Your task to perform on an android device: turn off sleep mode Image 0: 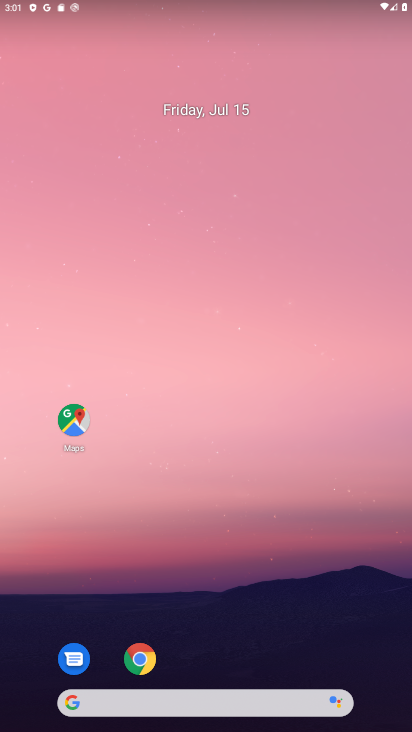
Step 0: drag from (242, 559) to (181, 155)
Your task to perform on an android device: turn off sleep mode Image 1: 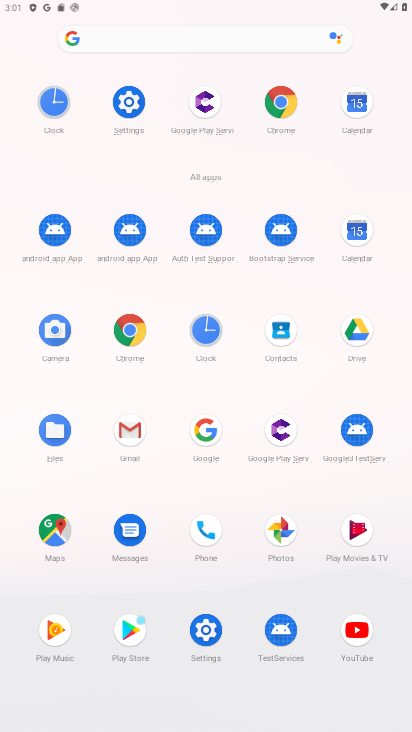
Step 1: click (128, 99)
Your task to perform on an android device: turn off sleep mode Image 2: 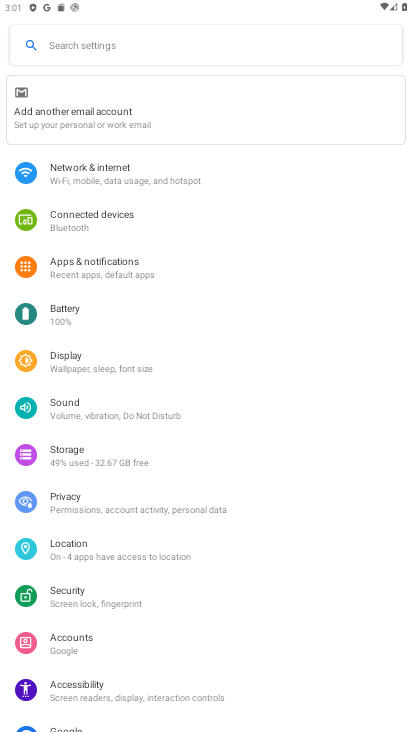
Step 2: click (77, 362)
Your task to perform on an android device: turn off sleep mode Image 3: 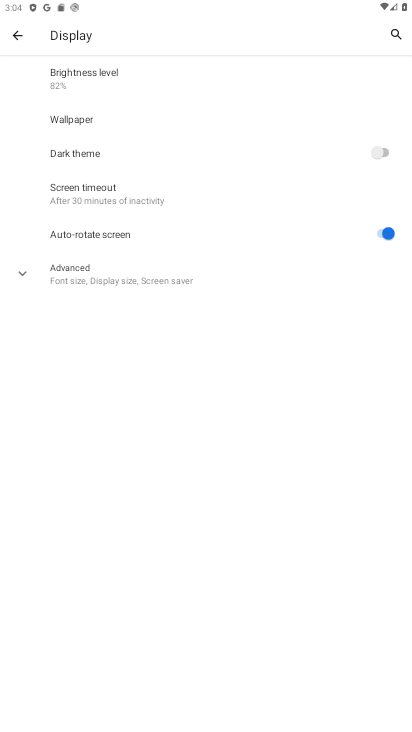
Step 3: task complete